Your task to perform on an android device: Open settings Image 0: 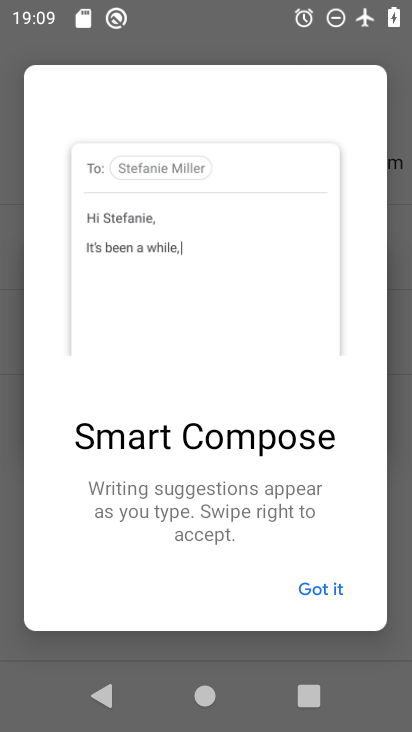
Step 0: press home button
Your task to perform on an android device: Open settings Image 1: 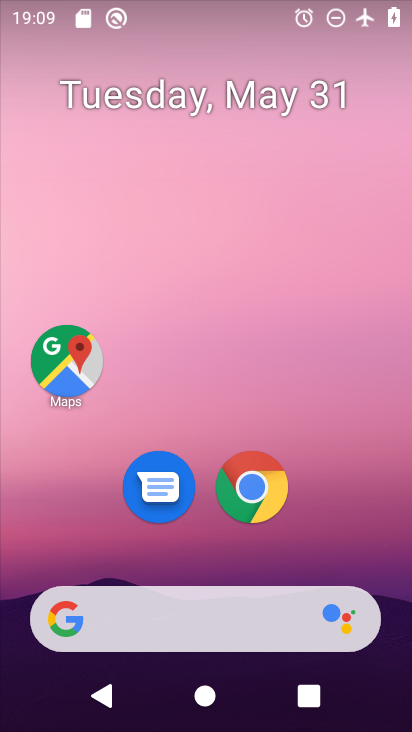
Step 1: drag from (328, 532) to (225, 136)
Your task to perform on an android device: Open settings Image 2: 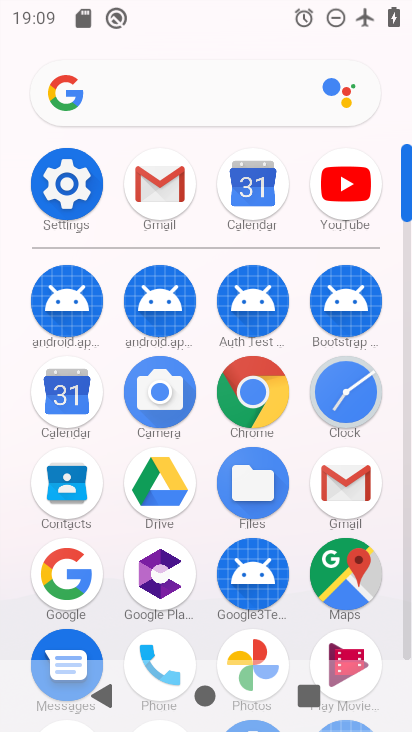
Step 2: click (57, 189)
Your task to perform on an android device: Open settings Image 3: 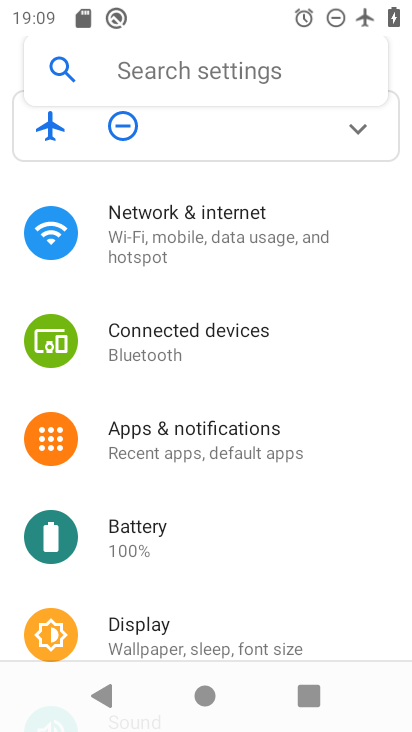
Step 3: task complete